Your task to perform on an android device: turn on javascript in the chrome app Image 0: 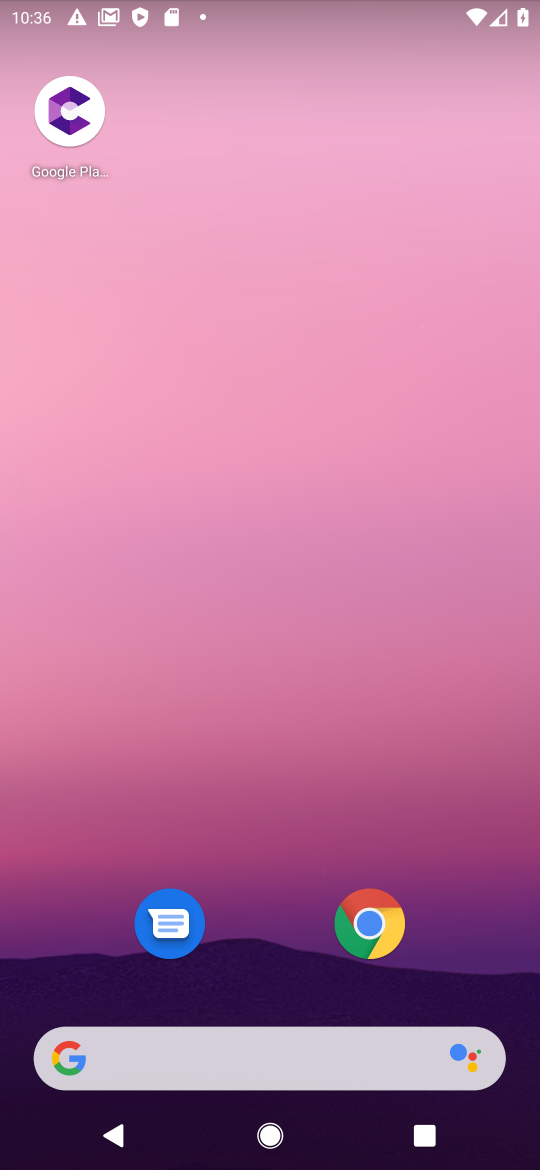
Step 0: drag from (228, 85) to (266, 17)
Your task to perform on an android device: turn on javascript in the chrome app Image 1: 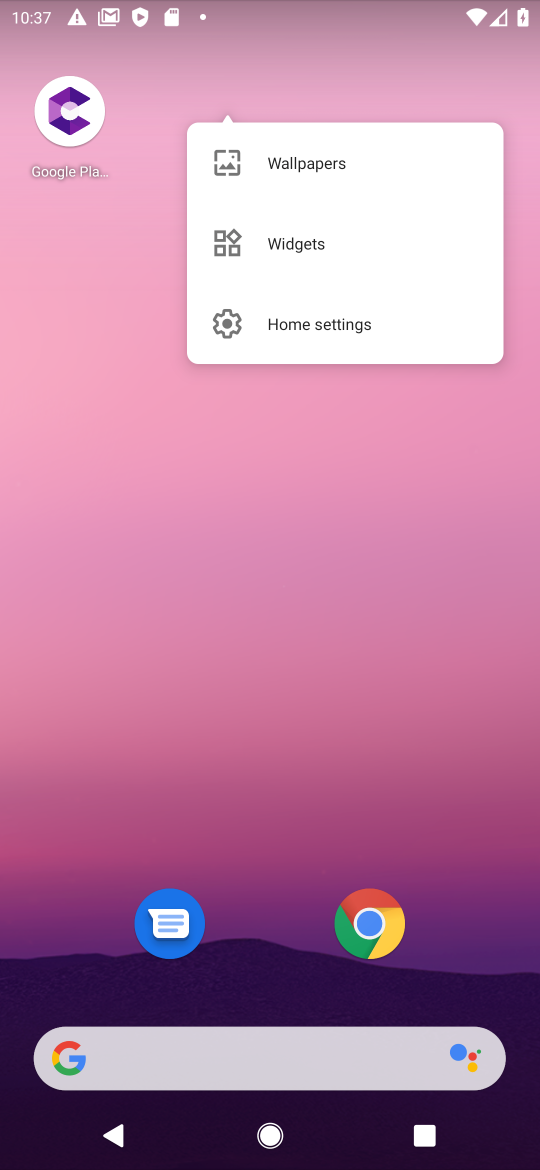
Step 1: drag from (148, 1047) to (239, 86)
Your task to perform on an android device: turn on javascript in the chrome app Image 2: 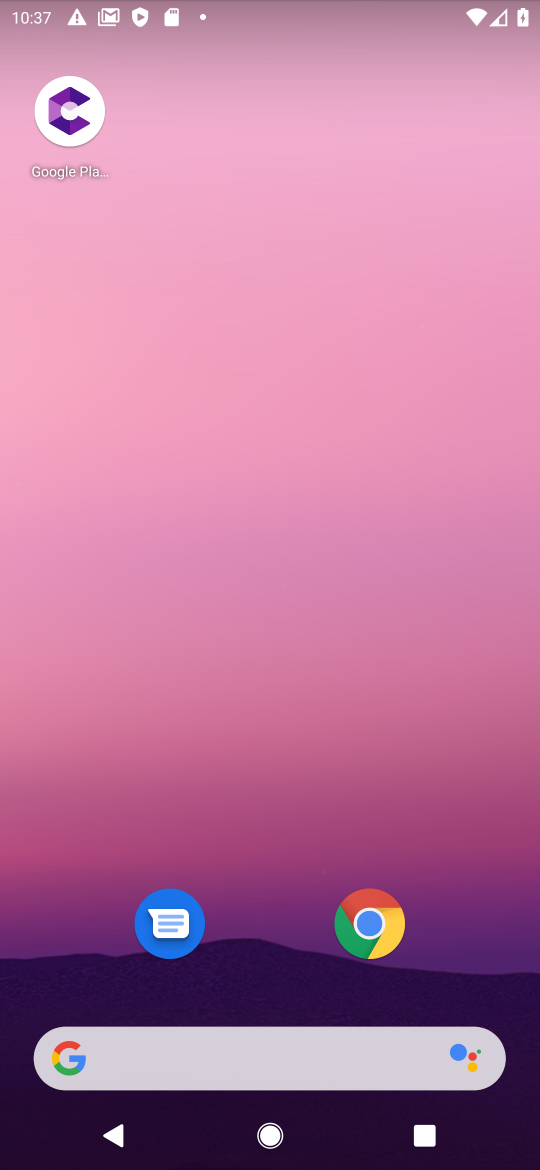
Step 2: drag from (338, 1043) to (372, 0)
Your task to perform on an android device: turn on javascript in the chrome app Image 3: 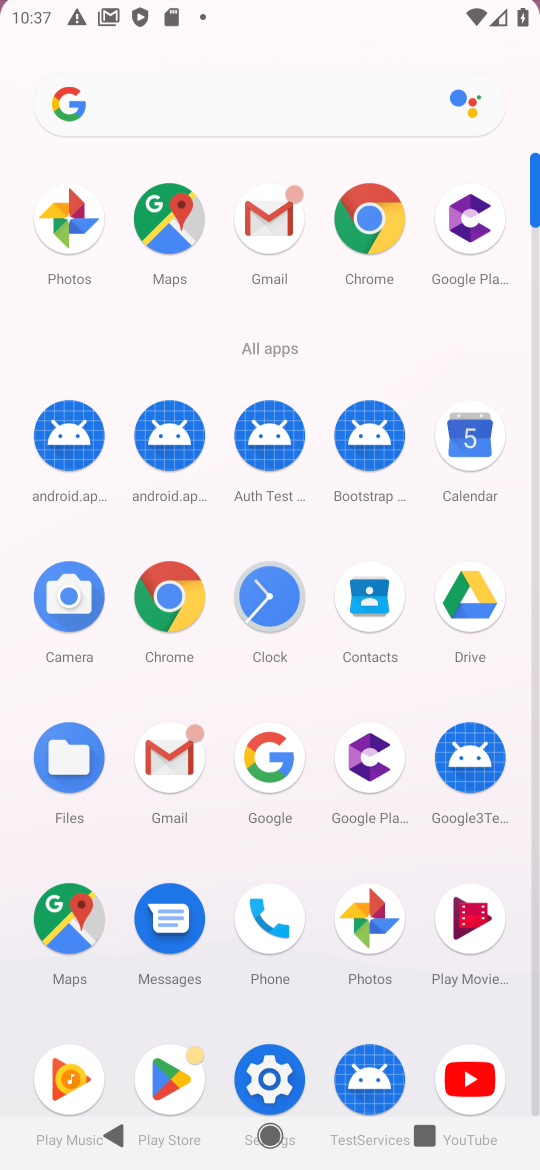
Step 3: click (388, 211)
Your task to perform on an android device: turn on javascript in the chrome app Image 4: 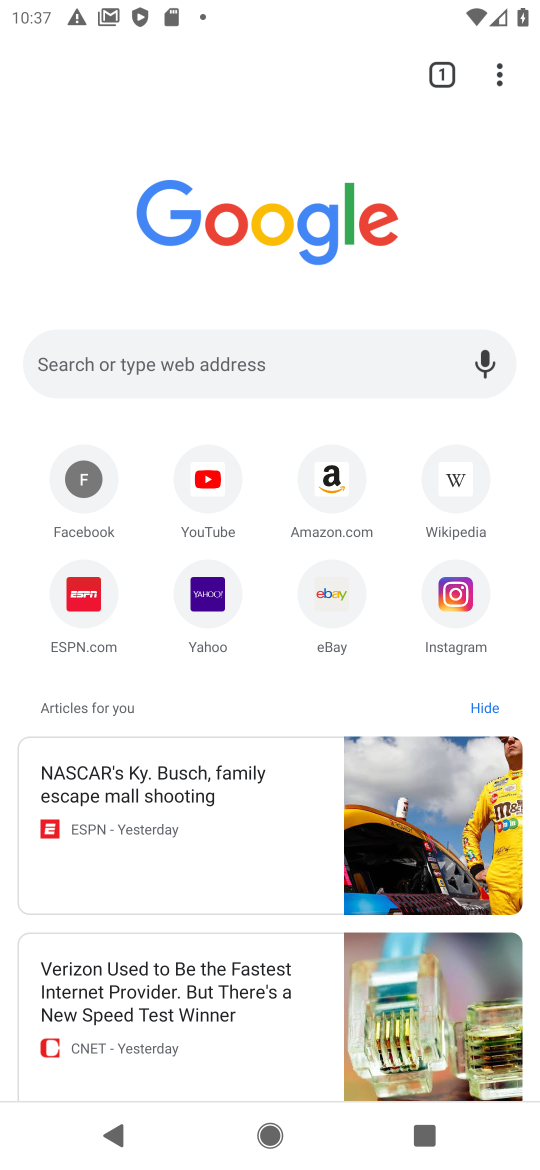
Step 4: drag from (494, 127) to (425, 599)
Your task to perform on an android device: turn on javascript in the chrome app Image 5: 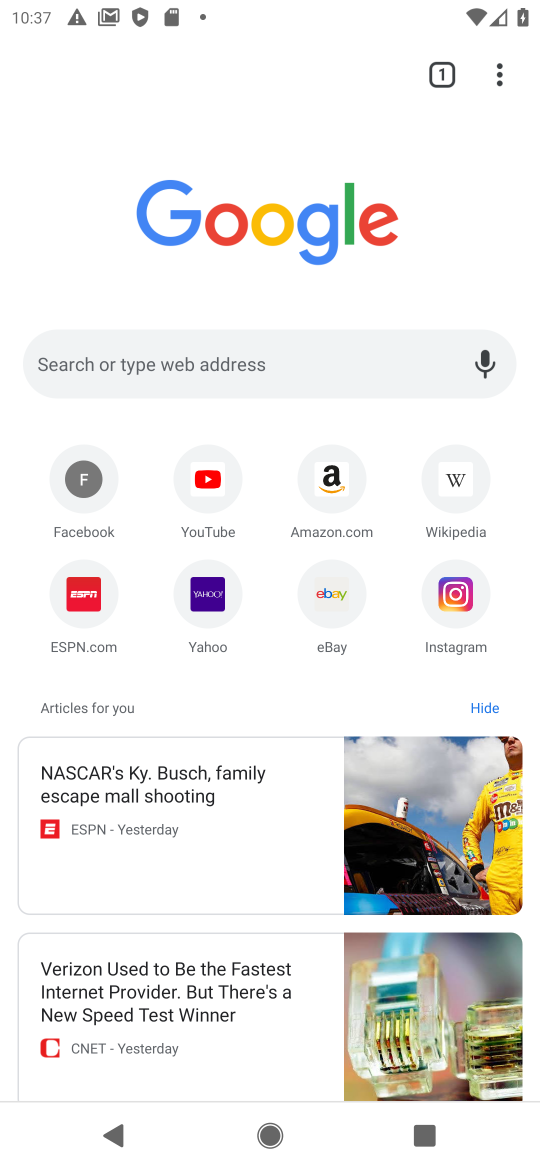
Step 5: drag from (503, 68) to (219, 629)
Your task to perform on an android device: turn on javascript in the chrome app Image 6: 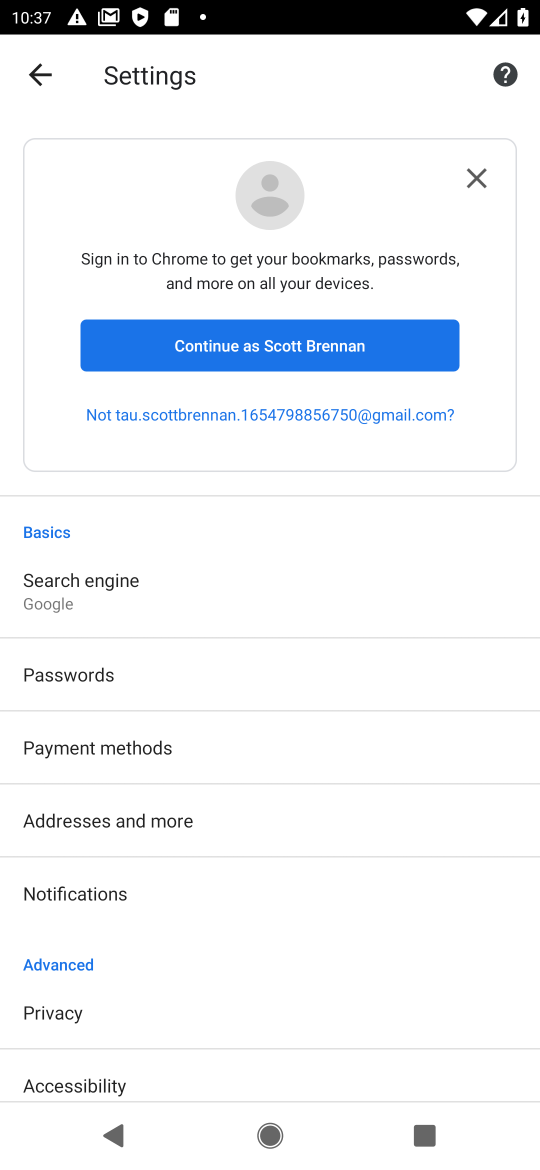
Step 6: drag from (299, 1025) to (238, 823)
Your task to perform on an android device: turn on javascript in the chrome app Image 7: 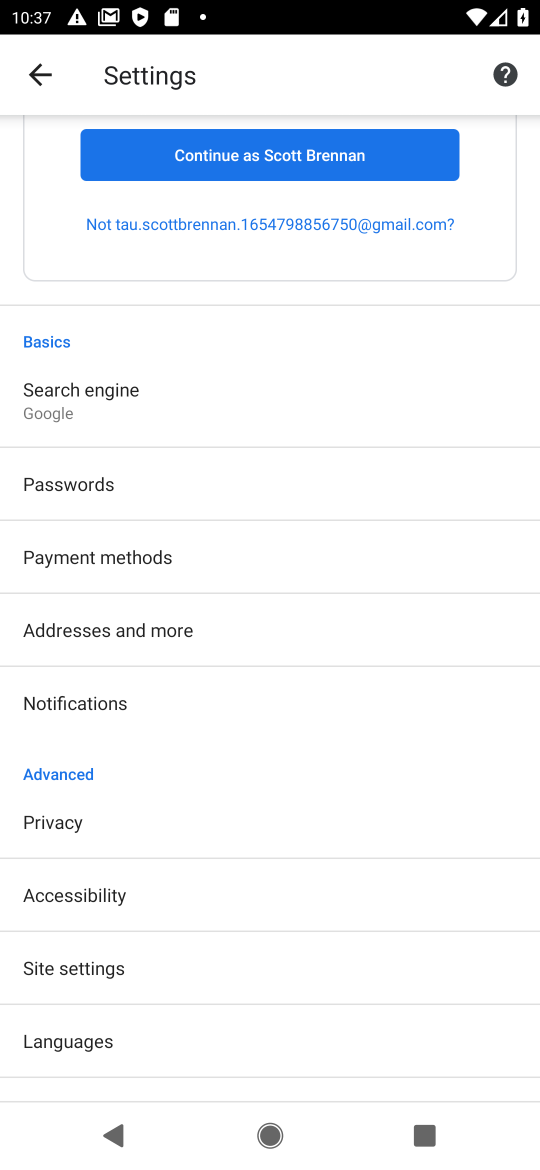
Step 7: click (144, 960)
Your task to perform on an android device: turn on javascript in the chrome app Image 8: 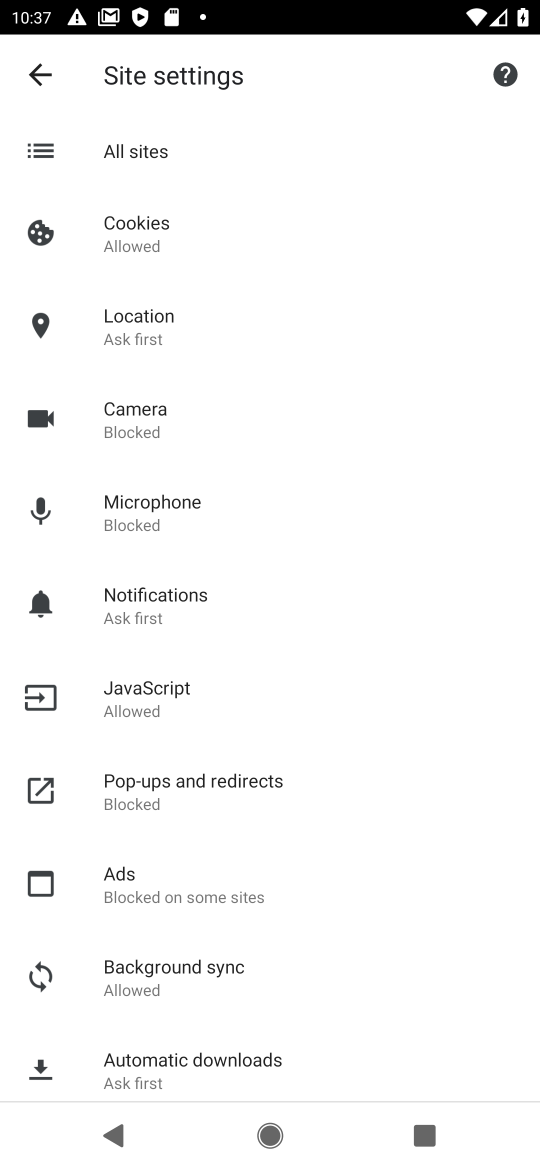
Step 8: click (137, 702)
Your task to perform on an android device: turn on javascript in the chrome app Image 9: 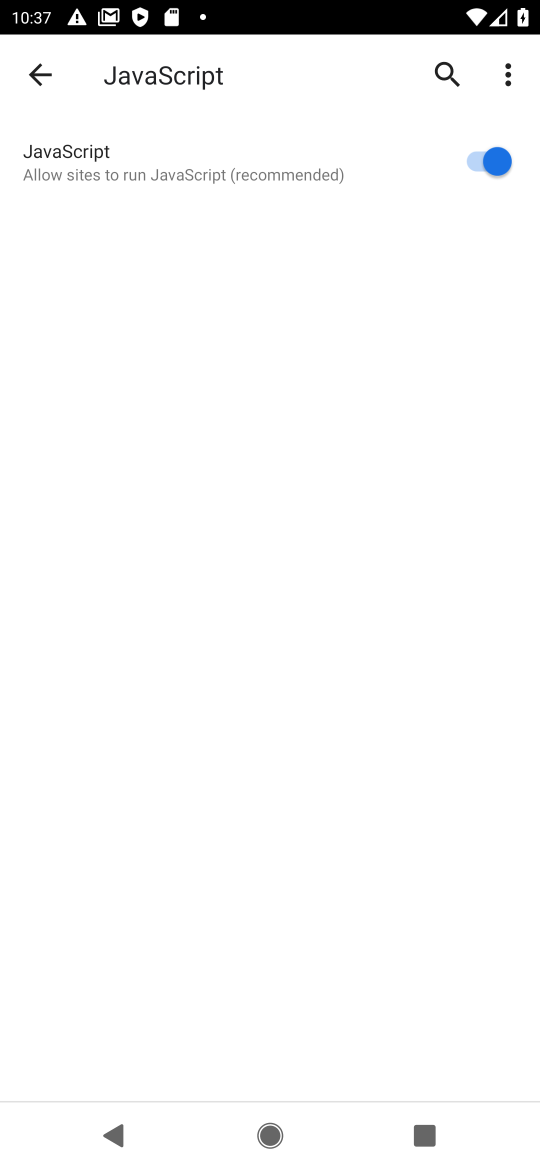
Step 9: task complete